Your task to perform on an android device: Open Reddit.com Image 0: 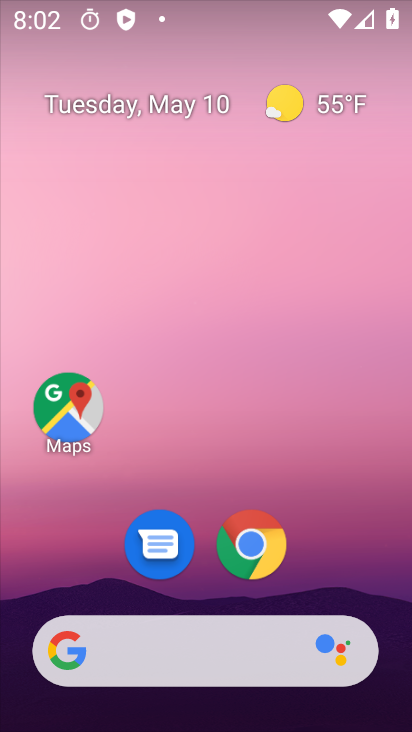
Step 0: click (232, 561)
Your task to perform on an android device: Open Reddit.com Image 1: 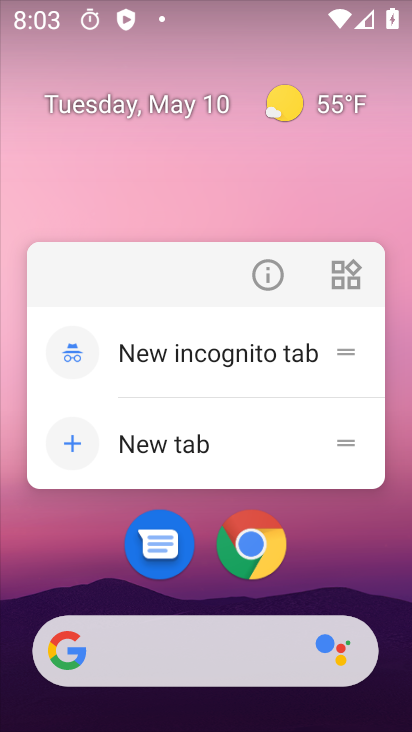
Step 1: click (244, 552)
Your task to perform on an android device: Open Reddit.com Image 2: 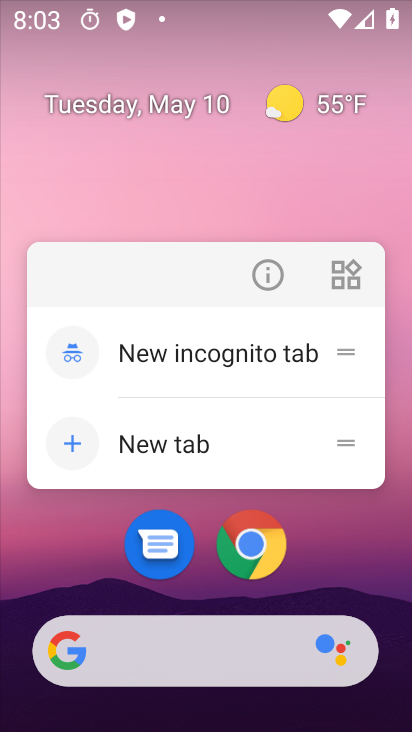
Step 2: click (255, 545)
Your task to perform on an android device: Open Reddit.com Image 3: 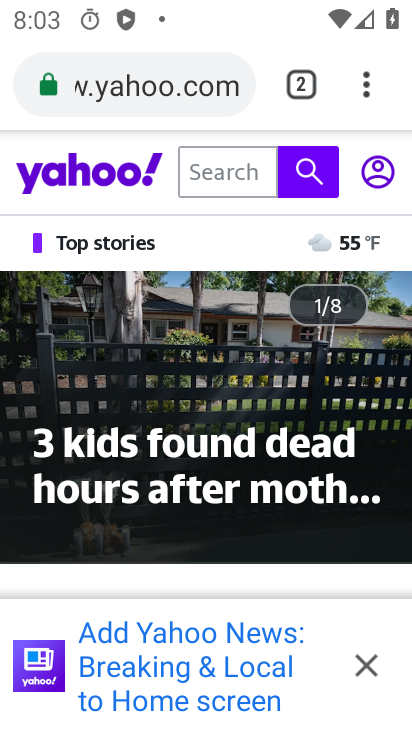
Step 3: click (302, 81)
Your task to perform on an android device: Open Reddit.com Image 4: 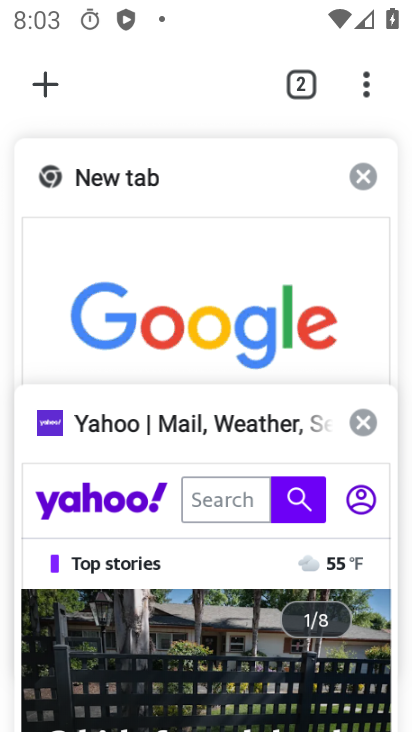
Step 4: click (370, 429)
Your task to perform on an android device: Open Reddit.com Image 5: 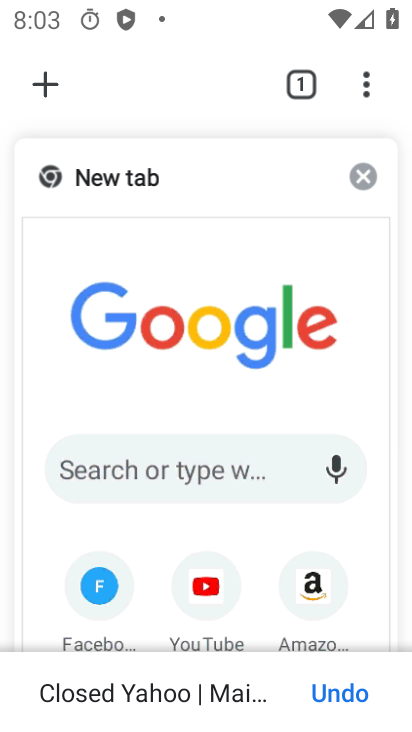
Step 5: click (365, 179)
Your task to perform on an android device: Open Reddit.com Image 6: 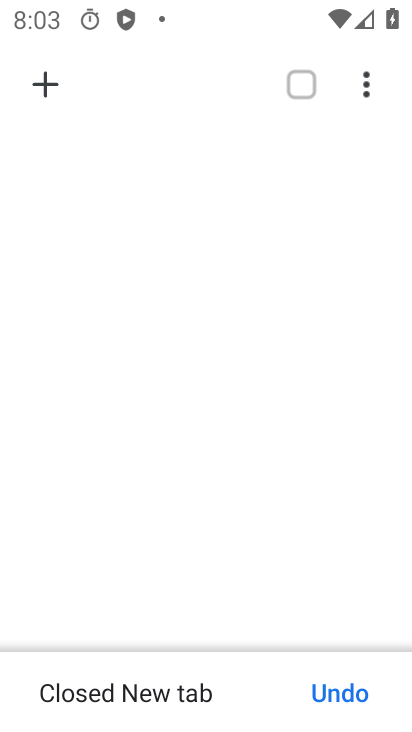
Step 6: click (33, 91)
Your task to perform on an android device: Open Reddit.com Image 7: 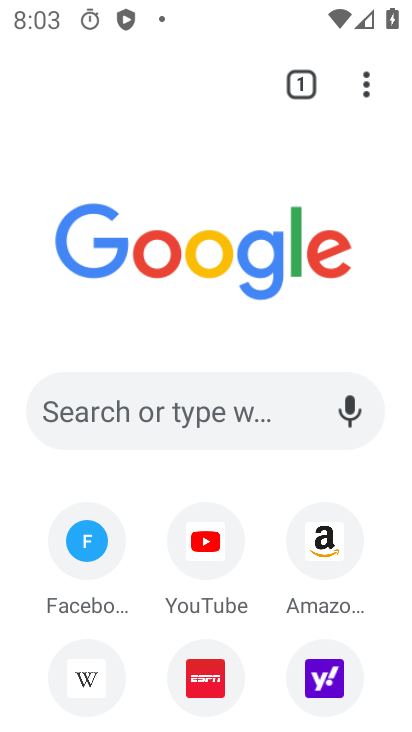
Step 7: click (133, 406)
Your task to perform on an android device: Open Reddit.com Image 8: 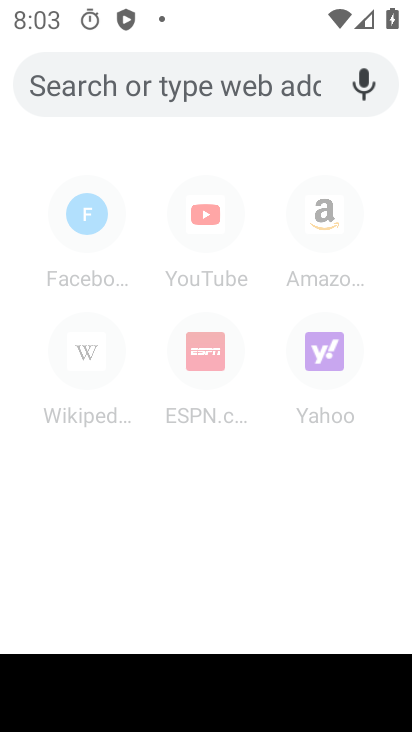
Step 8: type "reddit.com"
Your task to perform on an android device: Open Reddit.com Image 9: 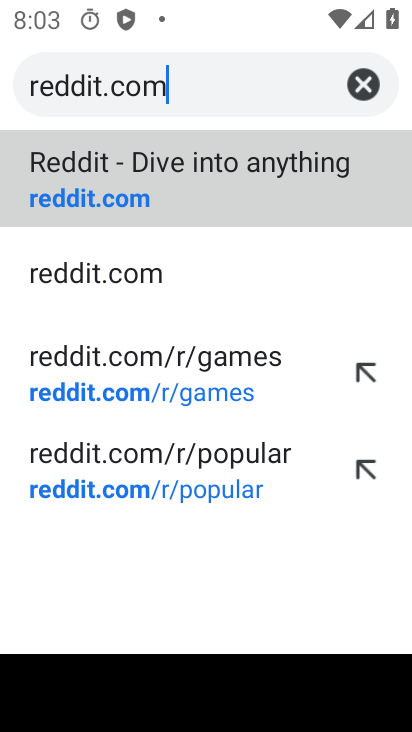
Step 9: click (210, 177)
Your task to perform on an android device: Open Reddit.com Image 10: 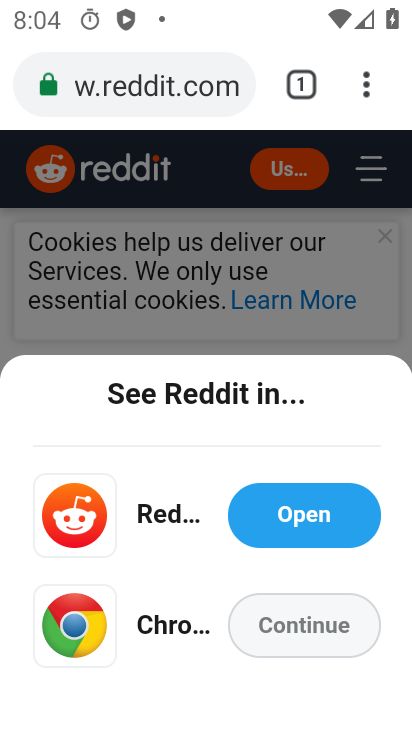
Step 10: click (248, 526)
Your task to perform on an android device: Open Reddit.com Image 11: 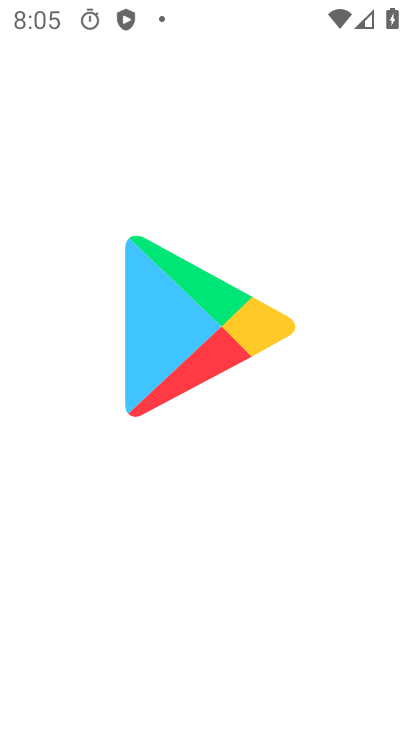
Step 11: task complete